Your task to perform on an android device: Go to Android settings Image 0: 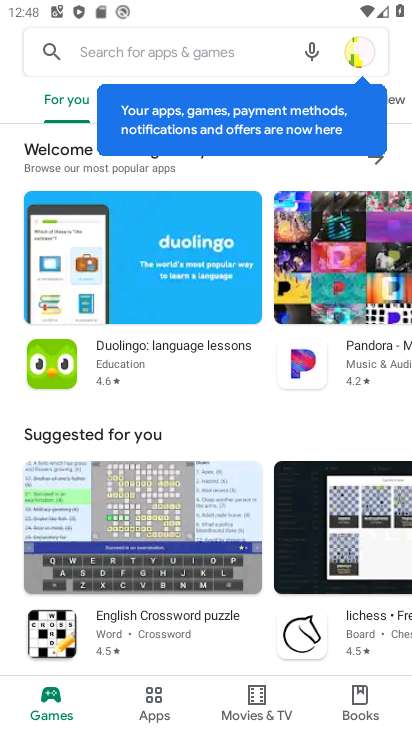
Step 0: press home button
Your task to perform on an android device: Go to Android settings Image 1: 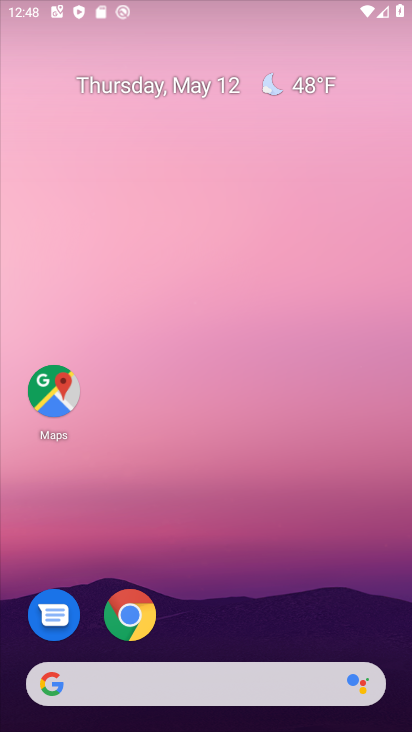
Step 1: drag from (290, 659) to (303, 26)
Your task to perform on an android device: Go to Android settings Image 2: 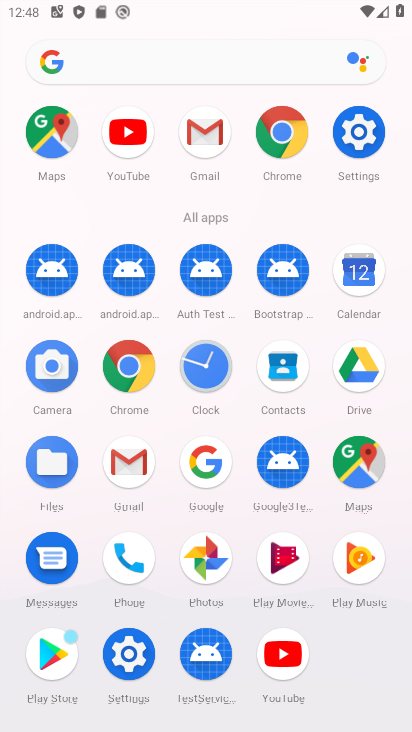
Step 2: click (354, 133)
Your task to perform on an android device: Go to Android settings Image 3: 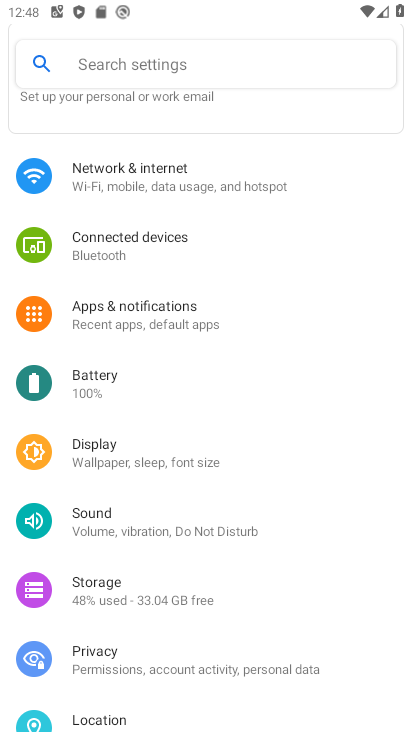
Step 3: drag from (295, 665) to (382, 272)
Your task to perform on an android device: Go to Android settings Image 4: 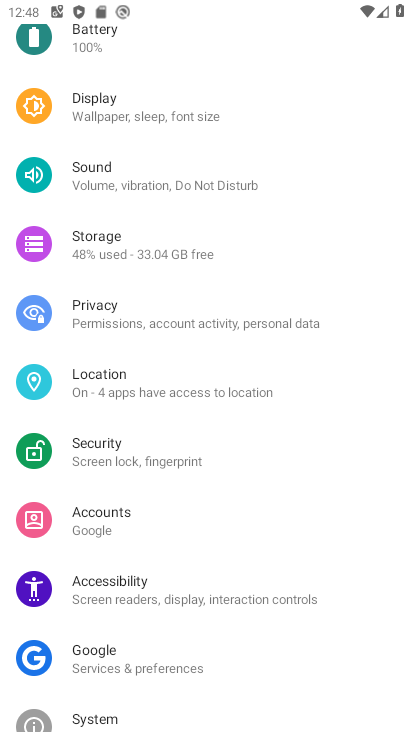
Step 4: drag from (307, 641) to (355, 294)
Your task to perform on an android device: Go to Android settings Image 5: 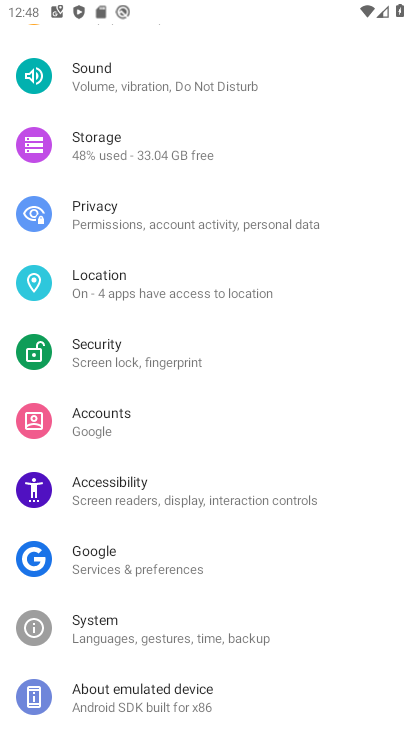
Step 5: click (192, 693)
Your task to perform on an android device: Go to Android settings Image 6: 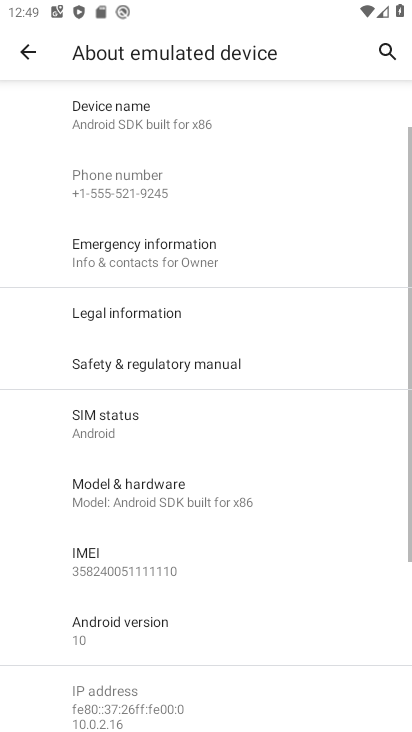
Step 6: click (172, 640)
Your task to perform on an android device: Go to Android settings Image 7: 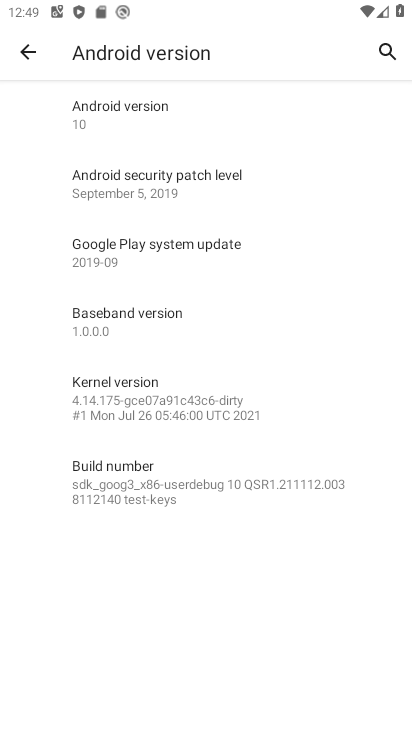
Step 7: task complete